Your task to perform on an android device: turn on airplane mode Image 0: 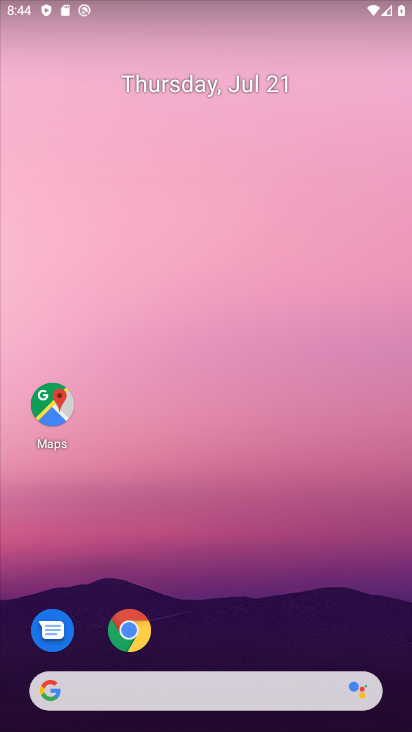
Step 0: drag from (211, 588) to (248, 261)
Your task to perform on an android device: turn on airplane mode Image 1: 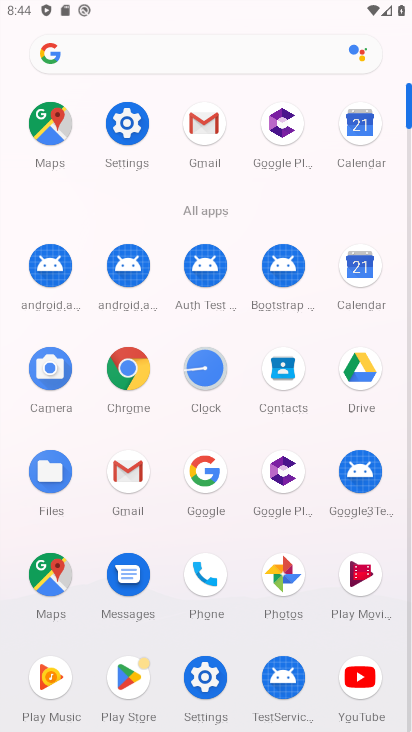
Step 1: click (124, 115)
Your task to perform on an android device: turn on airplane mode Image 2: 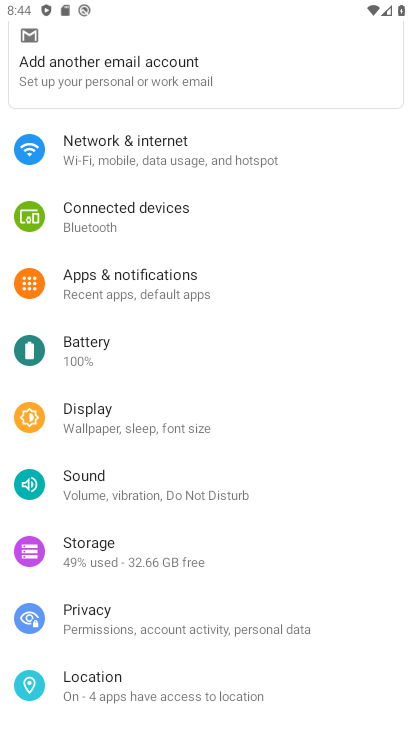
Step 2: click (132, 163)
Your task to perform on an android device: turn on airplane mode Image 3: 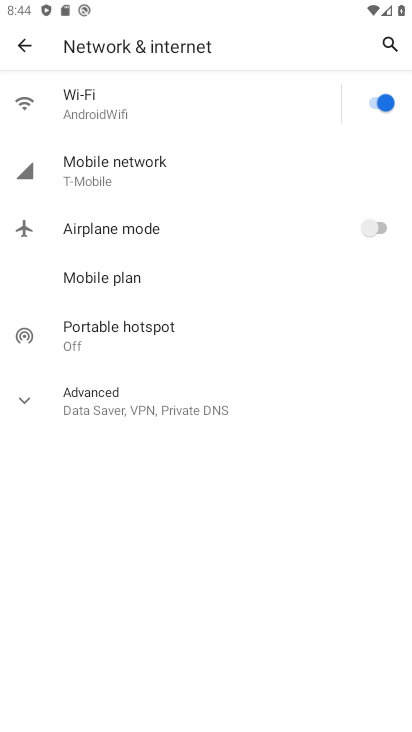
Step 3: click (383, 224)
Your task to perform on an android device: turn on airplane mode Image 4: 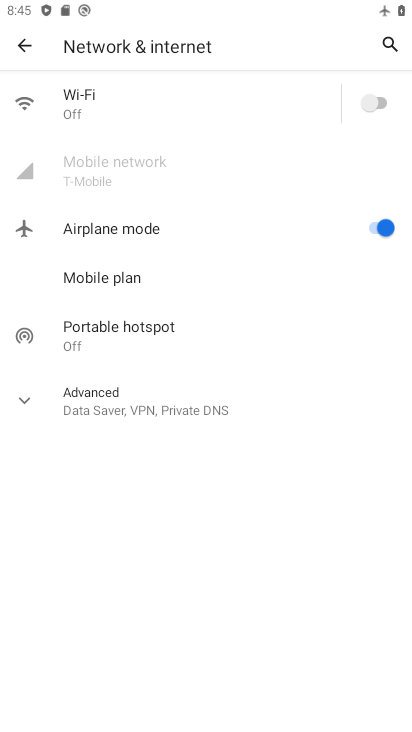
Step 4: task complete